Your task to perform on an android device: When is my next meeting? Image 0: 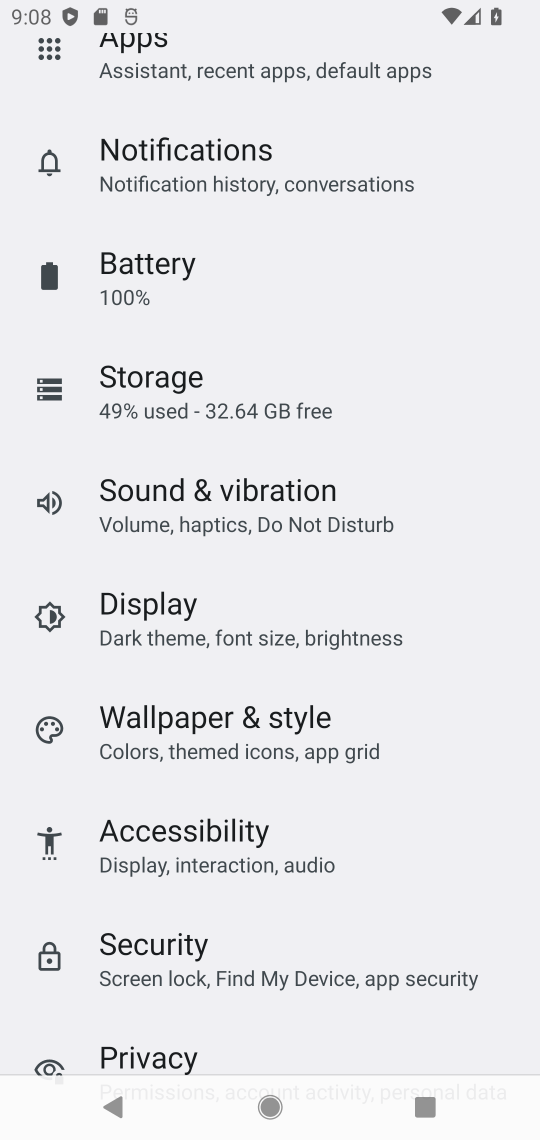
Step 0: press home button
Your task to perform on an android device: When is my next meeting? Image 1: 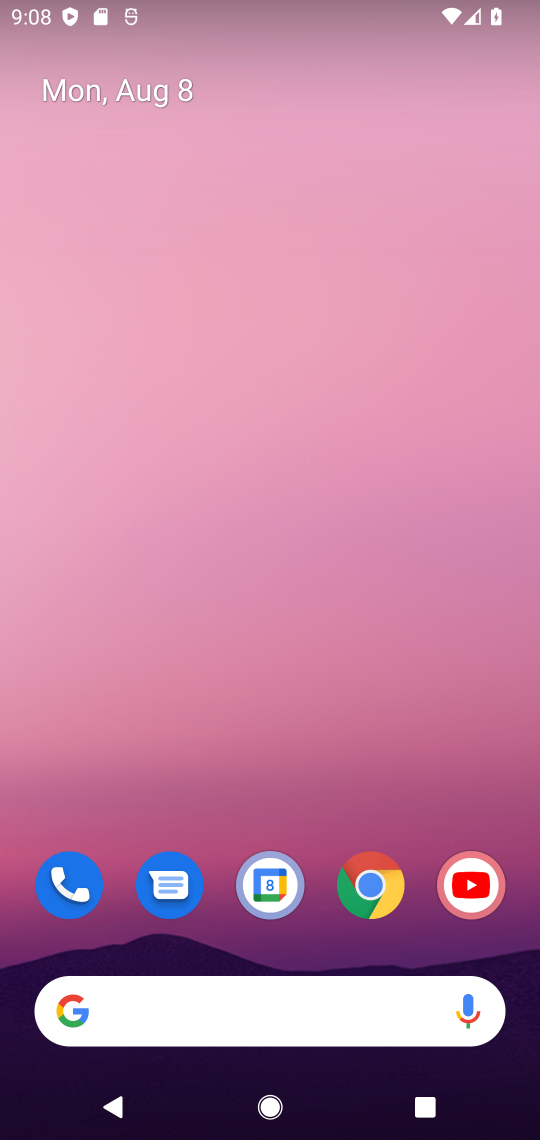
Step 1: drag from (250, 656) to (526, 25)
Your task to perform on an android device: When is my next meeting? Image 2: 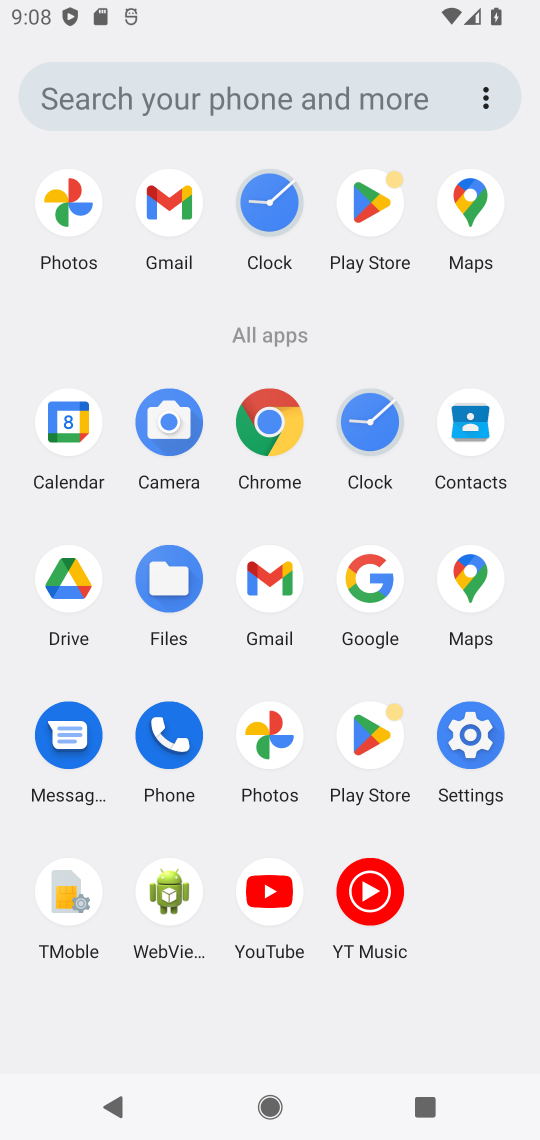
Step 2: click (72, 421)
Your task to perform on an android device: When is my next meeting? Image 3: 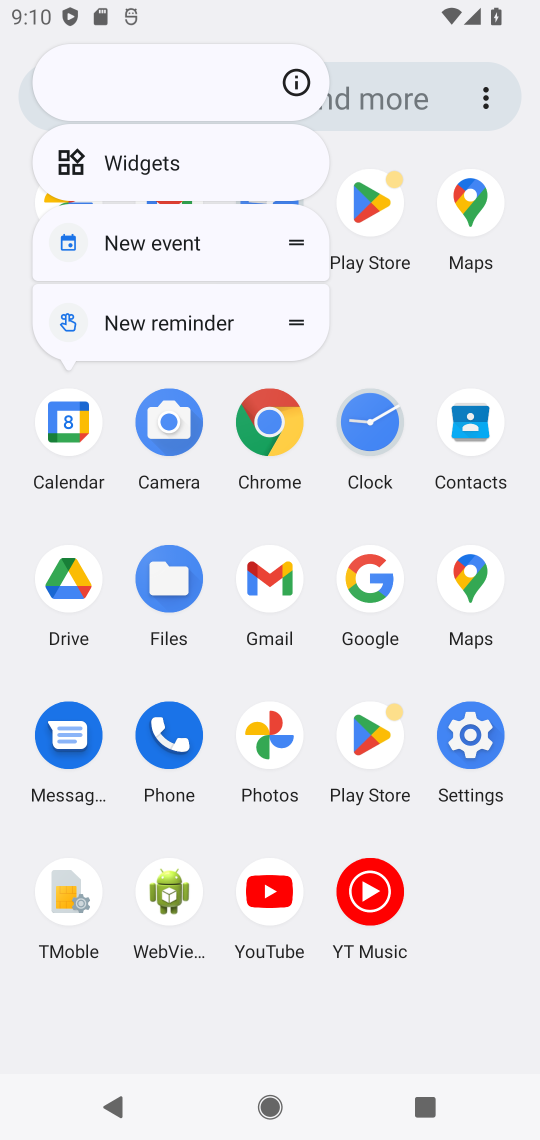
Step 3: click (82, 437)
Your task to perform on an android device: When is my next meeting? Image 4: 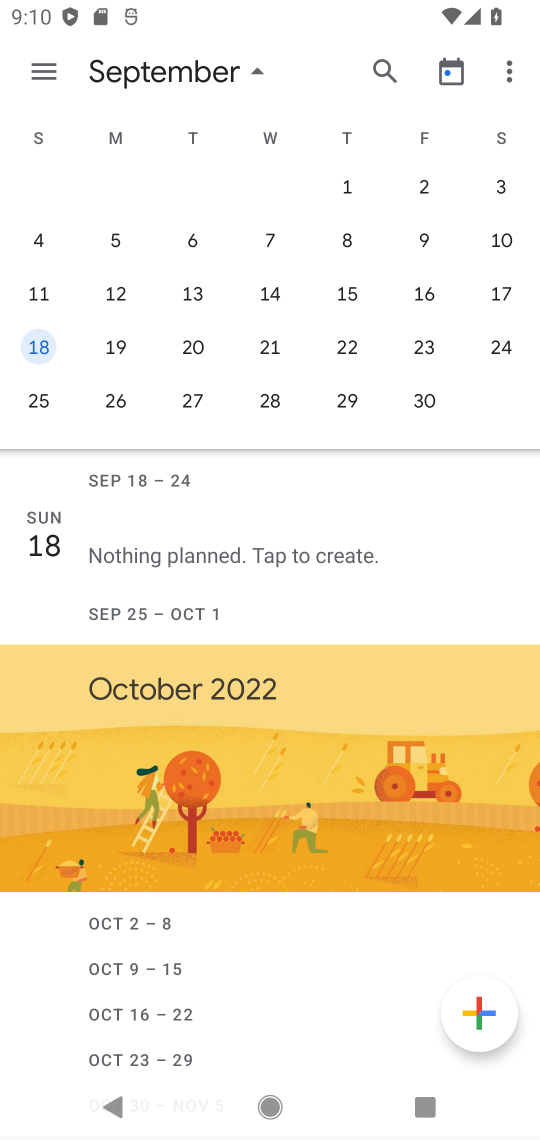
Step 4: task complete